Your task to perform on an android device: Go to Yahoo.com Image 0: 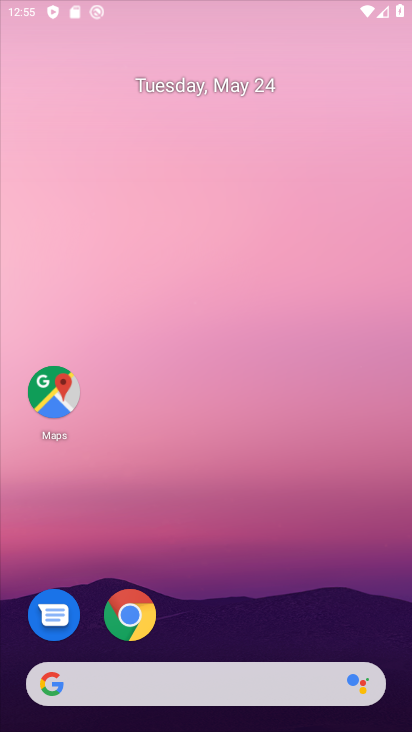
Step 0: press home button
Your task to perform on an android device: Go to Yahoo.com Image 1: 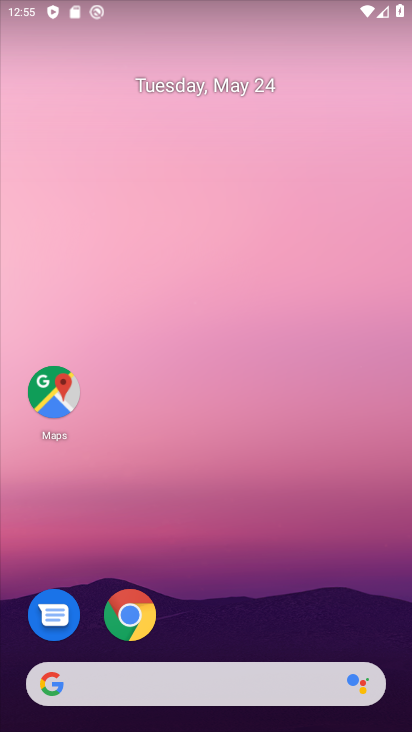
Step 1: press home button
Your task to perform on an android device: Go to Yahoo.com Image 2: 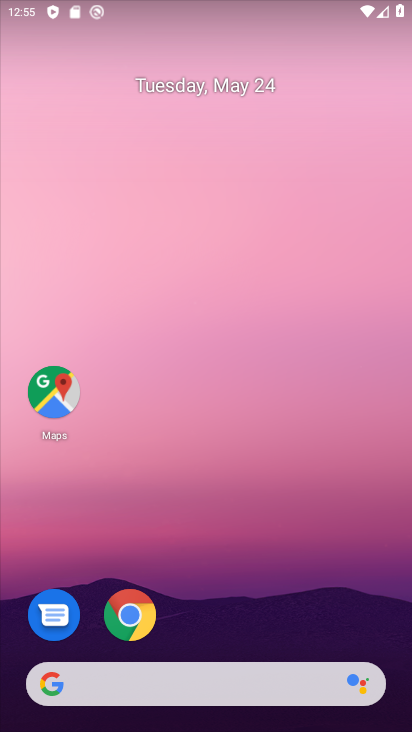
Step 2: press home button
Your task to perform on an android device: Go to Yahoo.com Image 3: 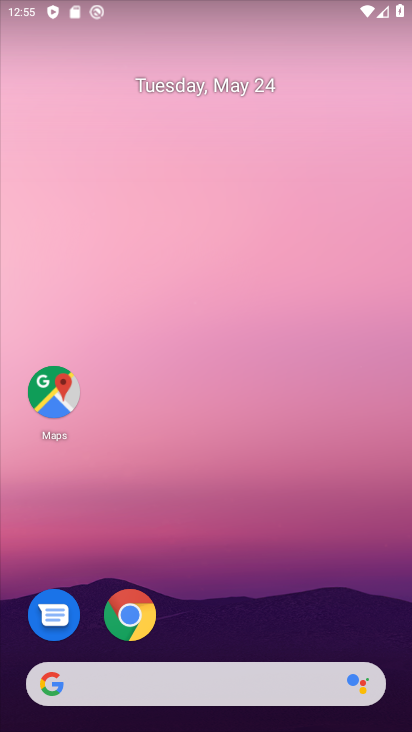
Step 3: press home button
Your task to perform on an android device: Go to Yahoo.com Image 4: 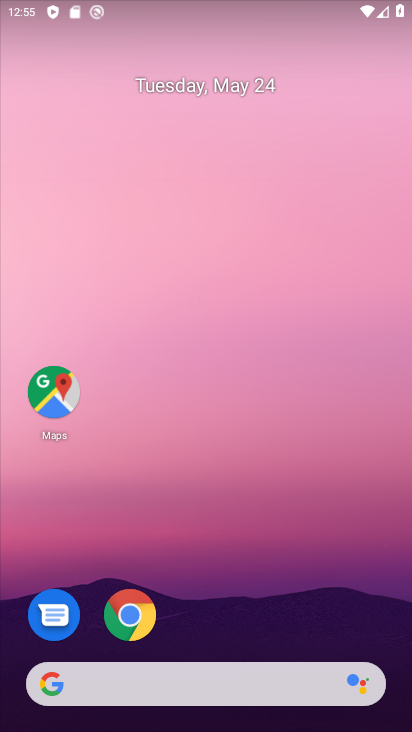
Step 4: press home button
Your task to perform on an android device: Go to Yahoo.com Image 5: 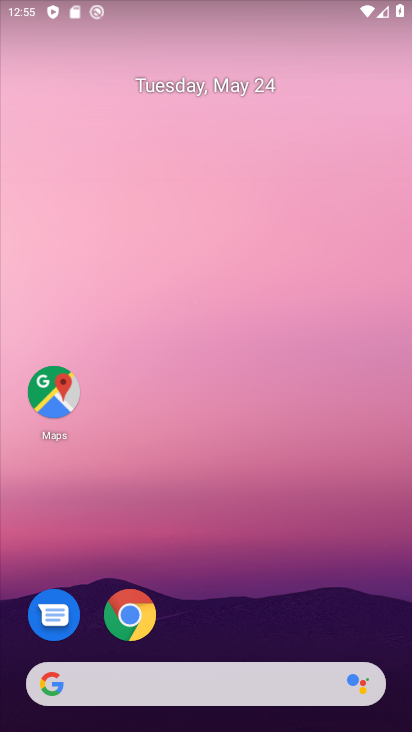
Step 5: press home button
Your task to perform on an android device: Go to Yahoo.com Image 6: 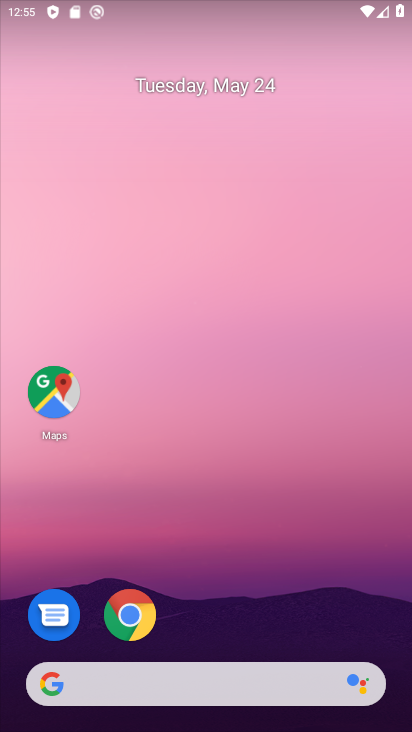
Step 6: click (130, 608)
Your task to perform on an android device: Go to Yahoo.com Image 7: 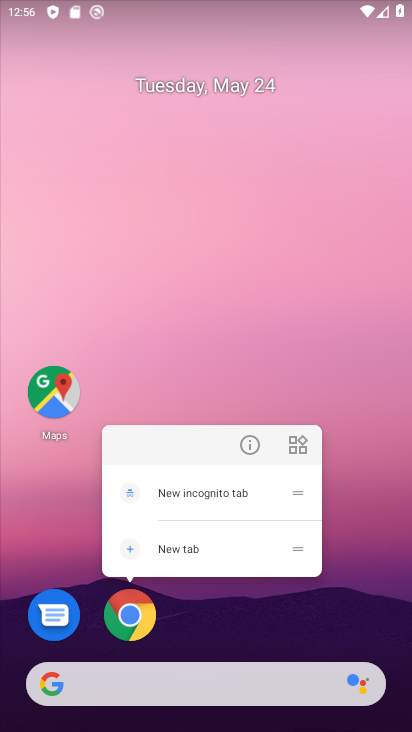
Step 7: click (126, 603)
Your task to perform on an android device: Go to Yahoo.com Image 8: 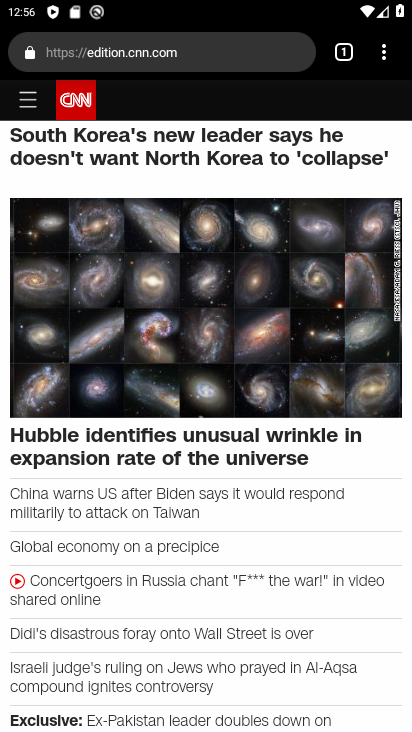
Step 8: click (340, 55)
Your task to perform on an android device: Go to Yahoo.com Image 9: 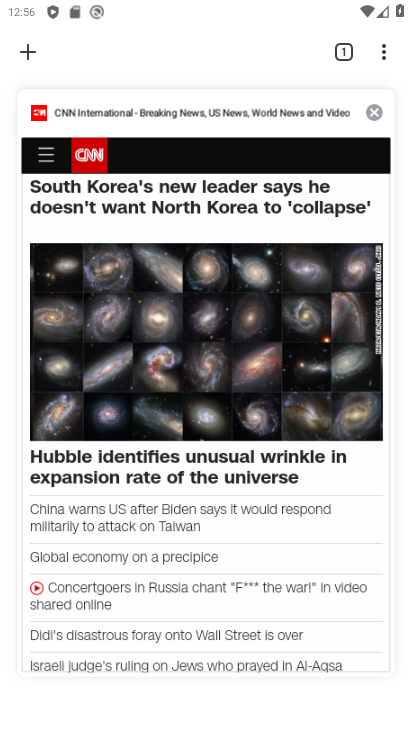
Step 9: click (373, 109)
Your task to perform on an android device: Go to Yahoo.com Image 10: 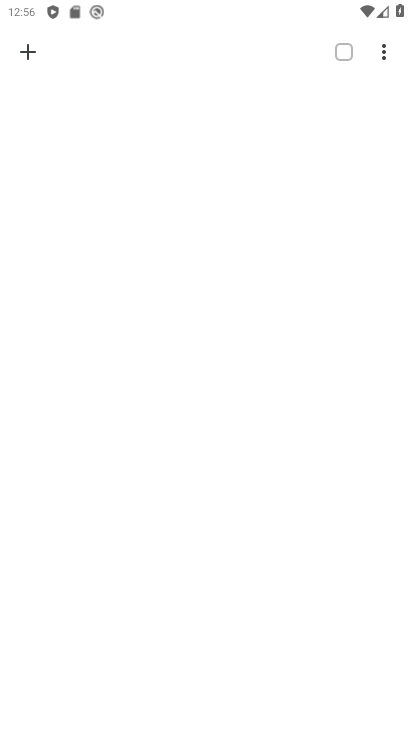
Step 10: click (27, 46)
Your task to perform on an android device: Go to Yahoo.com Image 11: 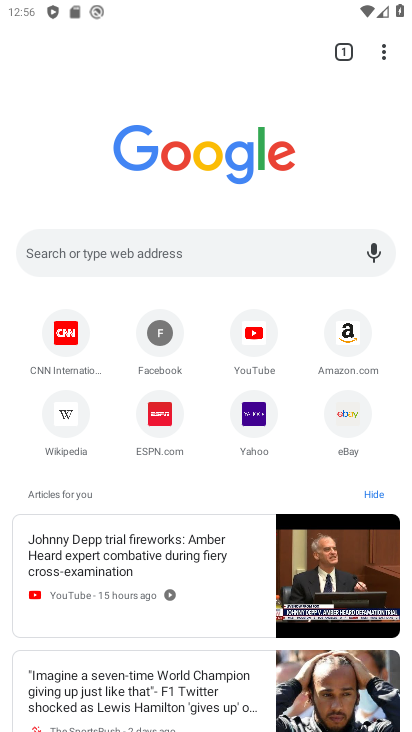
Step 11: click (256, 408)
Your task to perform on an android device: Go to Yahoo.com Image 12: 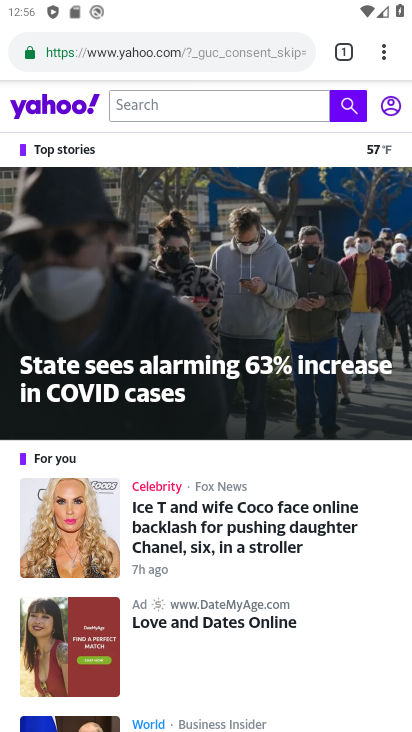
Step 12: task complete